Your task to perform on an android device: open the mobile data screen to see how much data has been used Image 0: 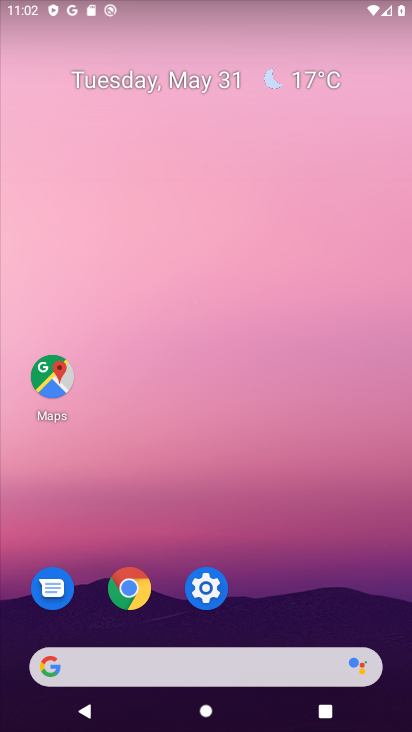
Step 0: drag from (259, 700) to (222, 194)
Your task to perform on an android device: open the mobile data screen to see how much data has been used Image 1: 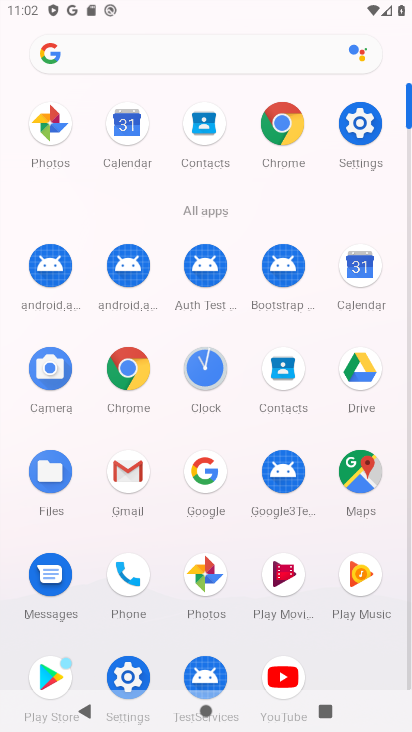
Step 1: click (368, 121)
Your task to perform on an android device: open the mobile data screen to see how much data has been used Image 2: 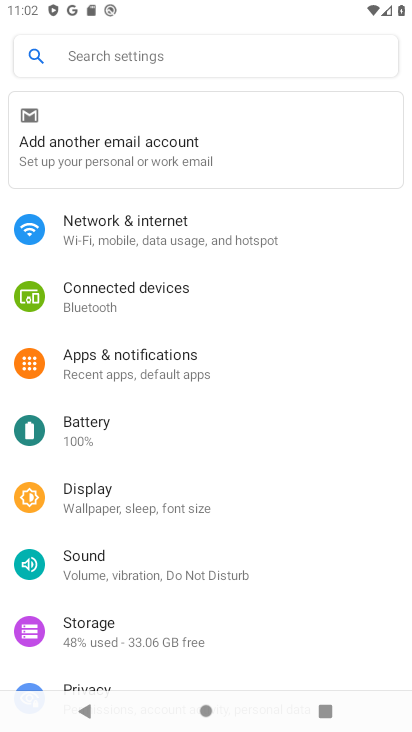
Step 2: click (183, 60)
Your task to perform on an android device: open the mobile data screen to see how much data has been used Image 3: 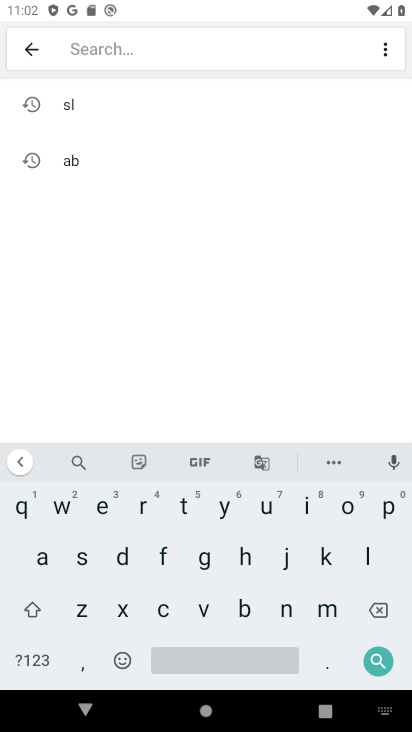
Step 3: click (115, 579)
Your task to perform on an android device: open the mobile data screen to see how much data has been used Image 4: 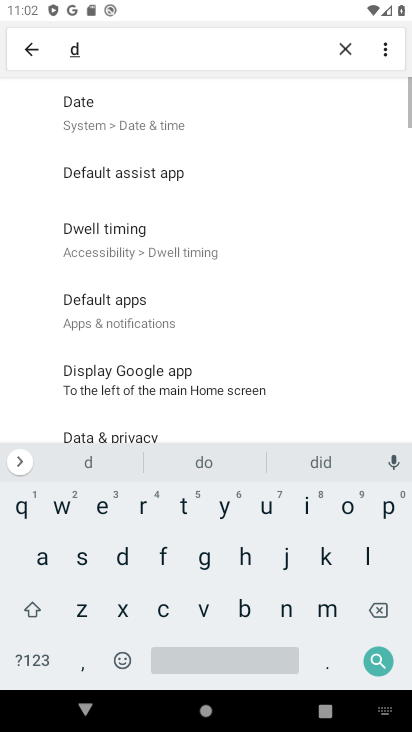
Step 4: click (35, 556)
Your task to perform on an android device: open the mobile data screen to see how much data has been used Image 5: 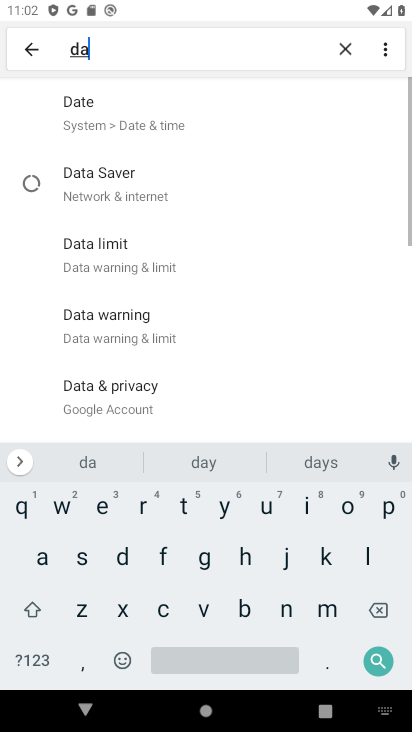
Step 5: click (179, 505)
Your task to perform on an android device: open the mobile data screen to see how much data has been used Image 6: 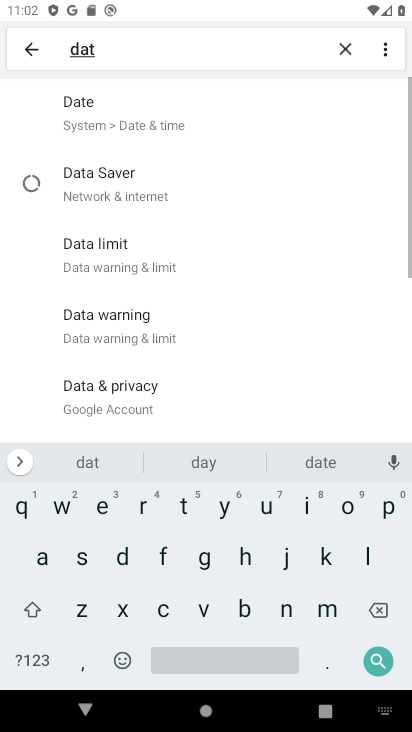
Step 6: click (40, 558)
Your task to perform on an android device: open the mobile data screen to see how much data has been used Image 7: 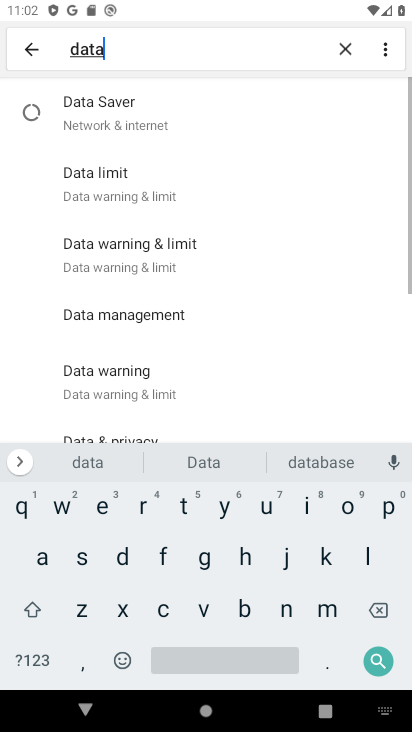
Step 7: click (212, 646)
Your task to perform on an android device: open the mobile data screen to see how much data has been used Image 8: 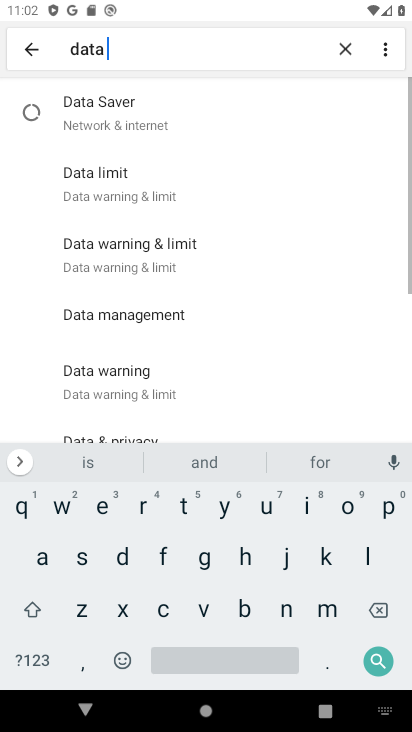
Step 8: click (268, 509)
Your task to perform on an android device: open the mobile data screen to see how much data has been used Image 9: 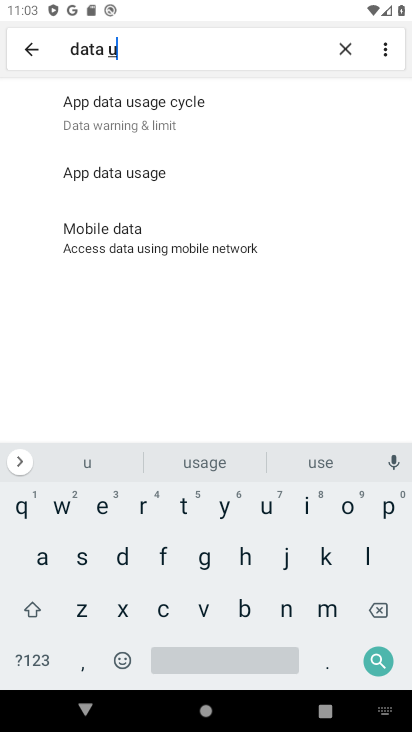
Step 9: click (154, 172)
Your task to perform on an android device: open the mobile data screen to see how much data has been used Image 10: 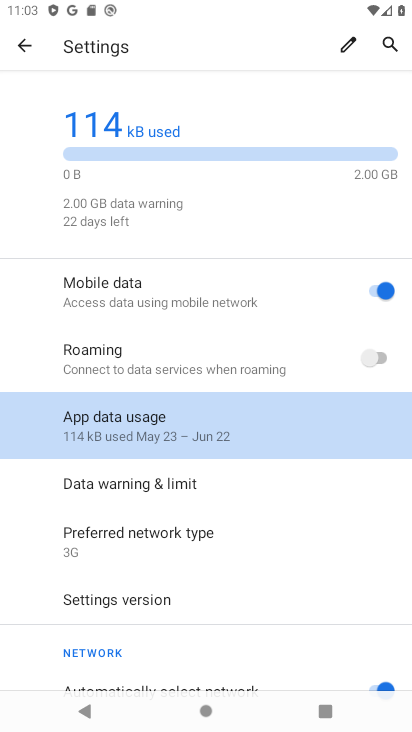
Step 10: click (110, 438)
Your task to perform on an android device: open the mobile data screen to see how much data has been used Image 11: 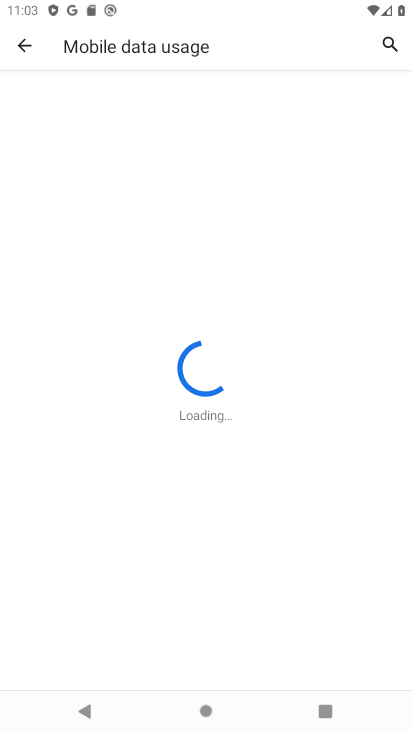
Step 11: task complete